Your task to perform on an android device: change notification settings in the gmail app Image 0: 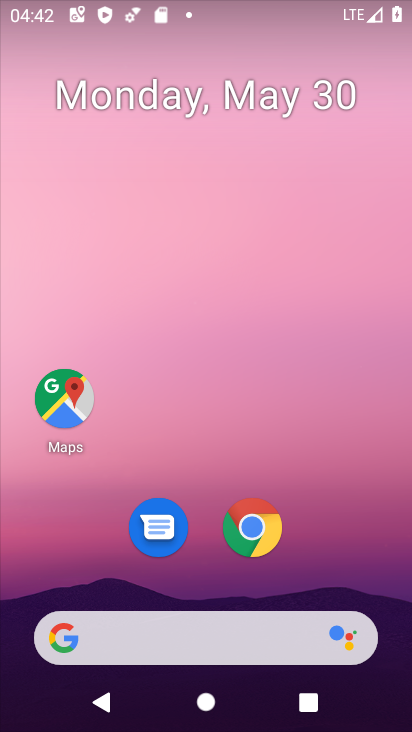
Step 0: drag from (255, 683) to (266, 0)
Your task to perform on an android device: change notification settings in the gmail app Image 1: 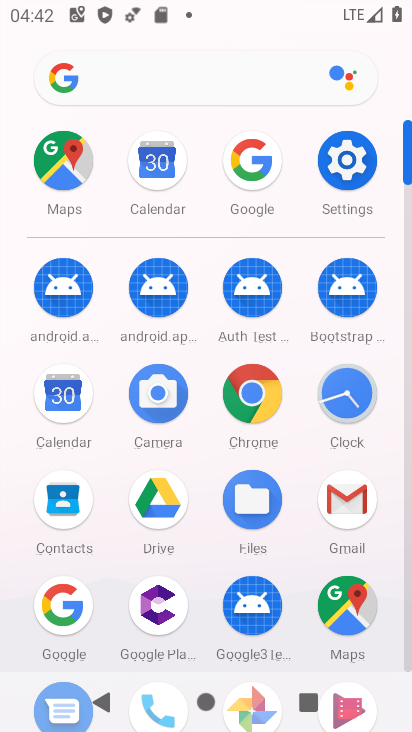
Step 1: click (356, 506)
Your task to perform on an android device: change notification settings in the gmail app Image 2: 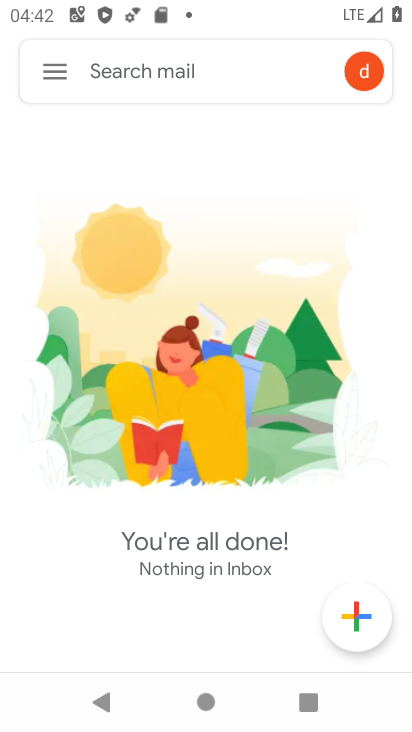
Step 2: click (54, 74)
Your task to perform on an android device: change notification settings in the gmail app Image 3: 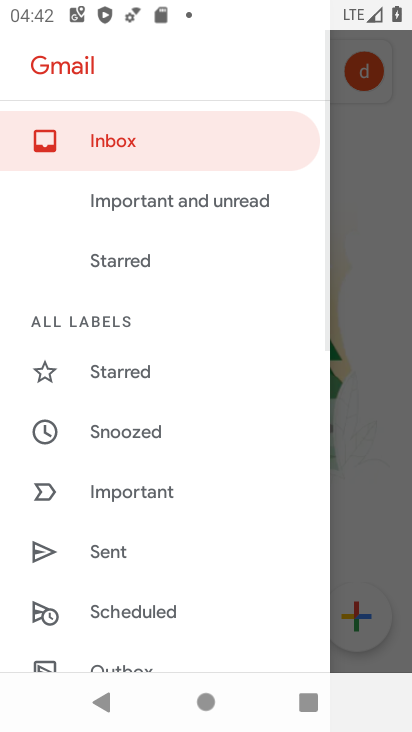
Step 3: drag from (148, 641) to (137, 188)
Your task to perform on an android device: change notification settings in the gmail app Image 4: 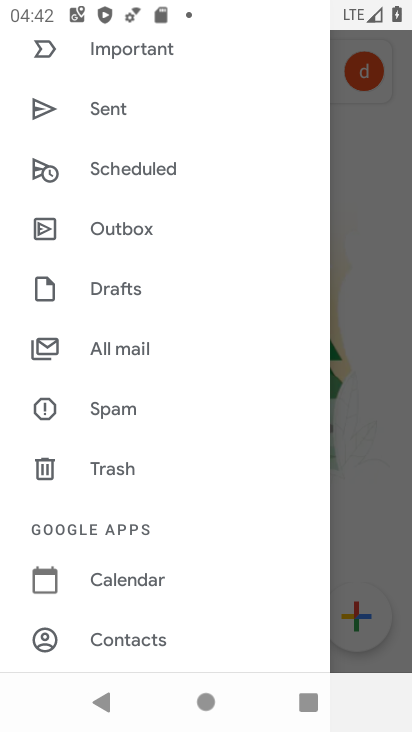
Step 4: drag from (139, 614) to (165, 203)
Your task to perform on an android device: change notification settings in the gmail app Image 5: 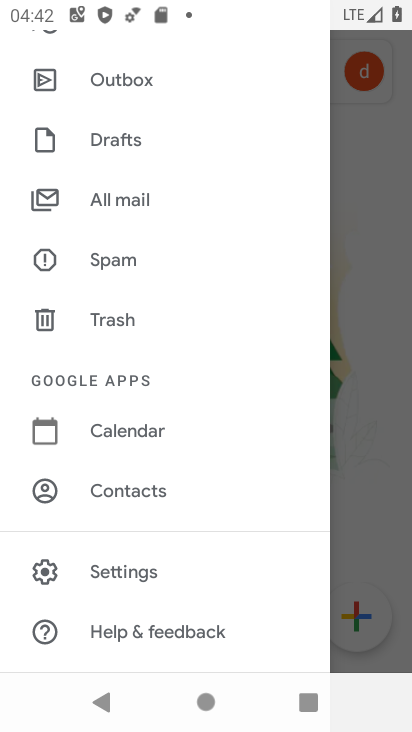
Step 5: click (146, 569)
Your task to perform on an android device: change notification settings in the gmail app Image 6: 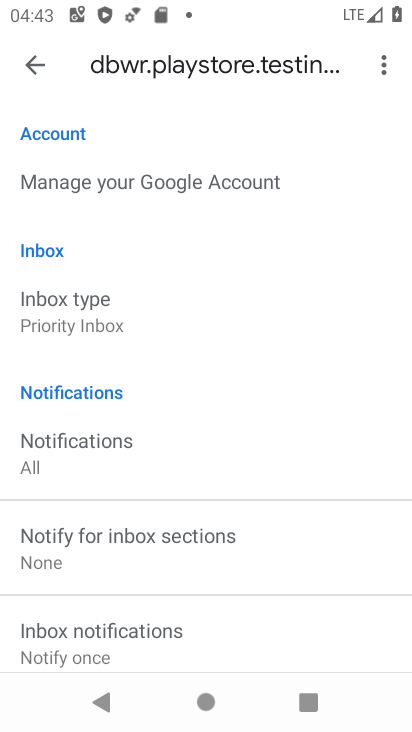
Step 6: click (64, 440)
Your task to perform on an android device: change notification settings in the gmail app Image 7: 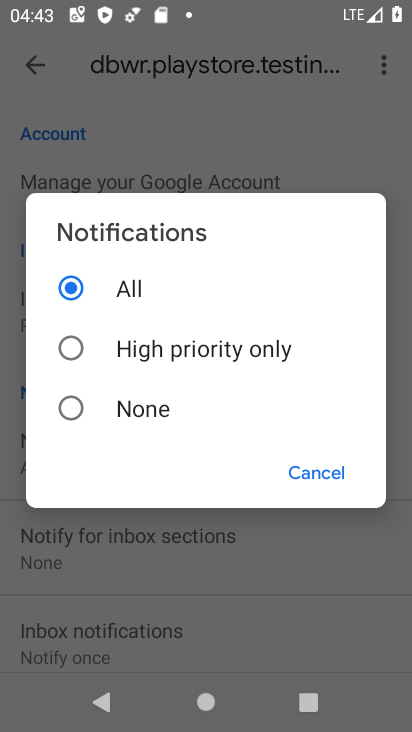
Step 7: click (66, 406)
Your task to perform on an android device: change notification settings in the gmail app Image 8: 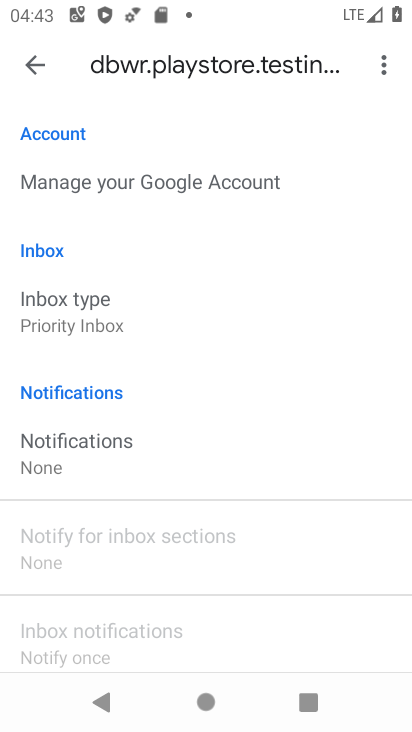
Step 8: task complete